Your task to perform on an android device: turn on improve location accuracy Image 0: 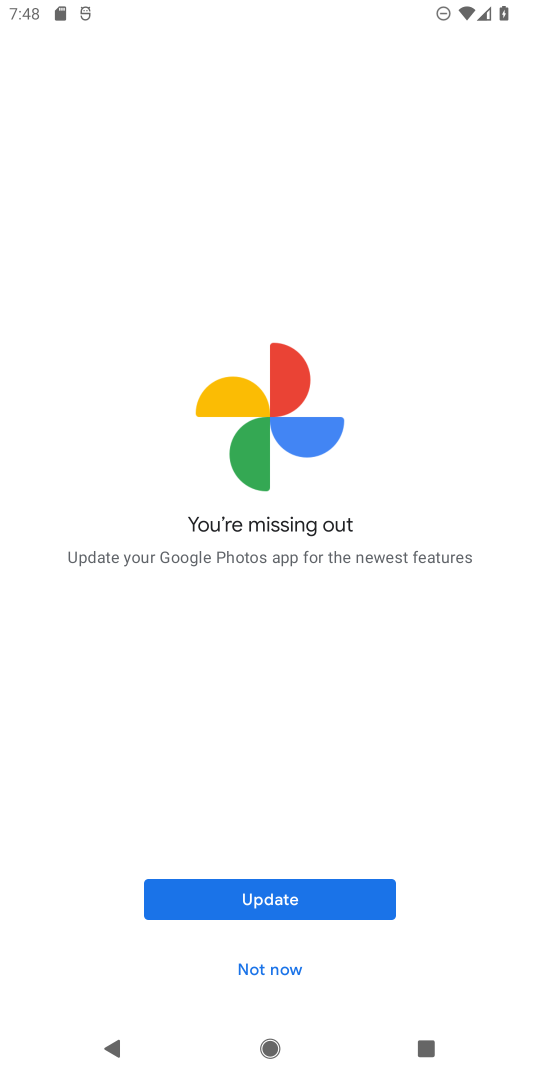
Step 0: press home button
Your task to perform on an android device: turn on improve location accuracy Image 1: 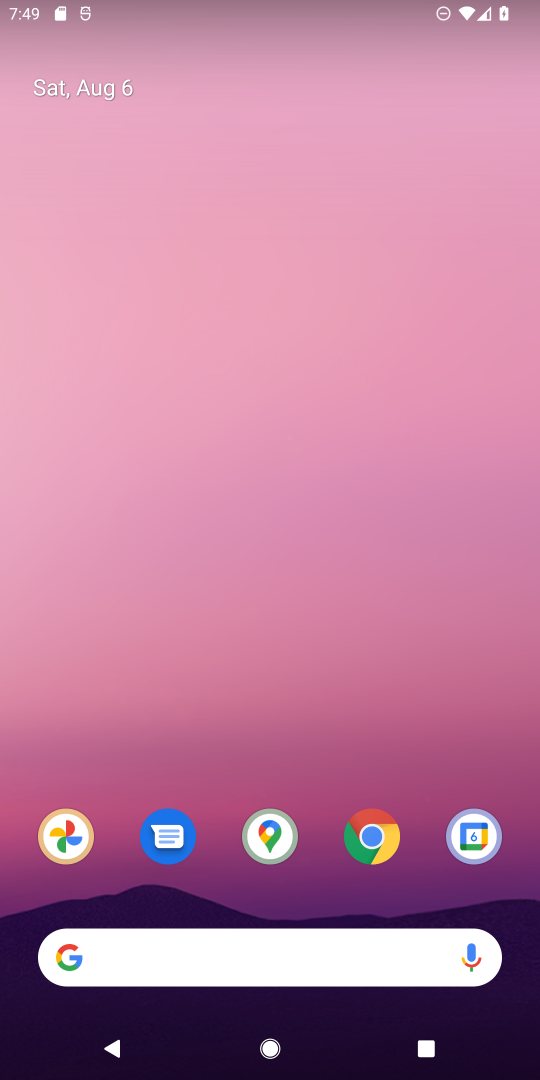
Step 1: drag from (291, 888) to (271, 517)
Your task to perform on an android device: turn on improve location accuracy Image 2: 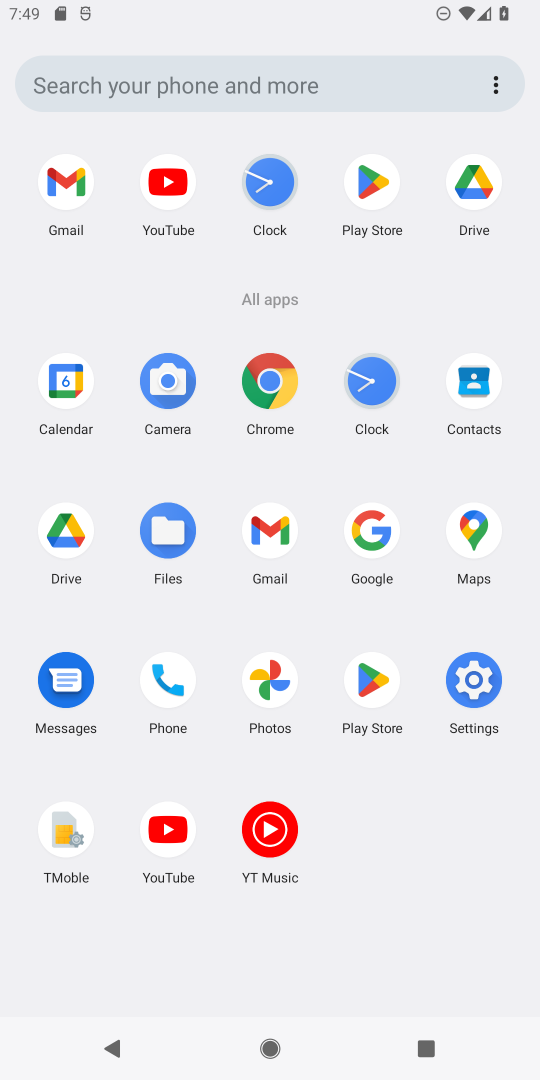
Step 2: click (470, 681)
Your task to perform on an android device: turn on improve location accuracy Image 3: 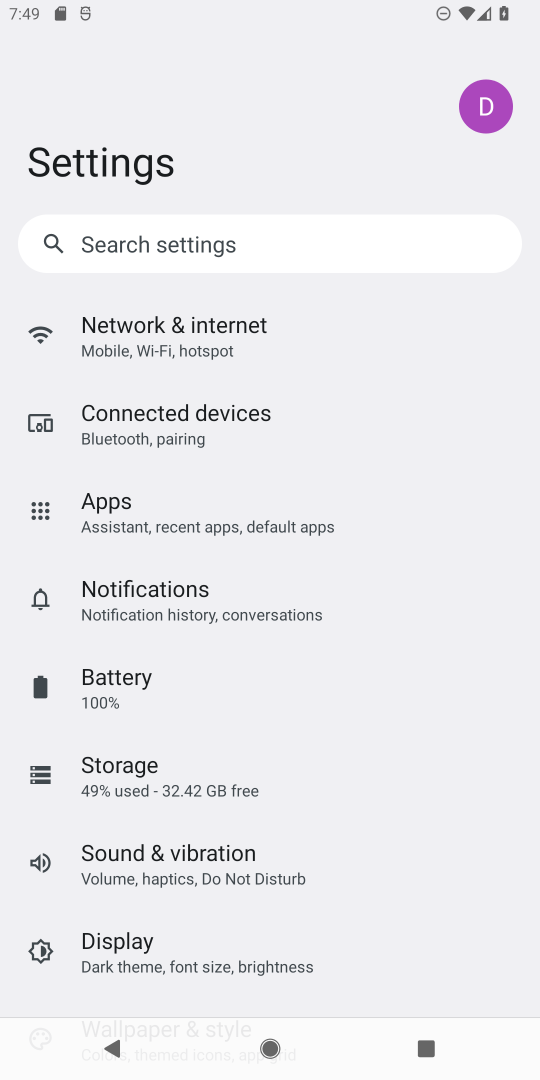
Step 3: drag from (135, 958) to (169, 637)
Your task to perform on an android device: turn on improve location accuracy Image 4: 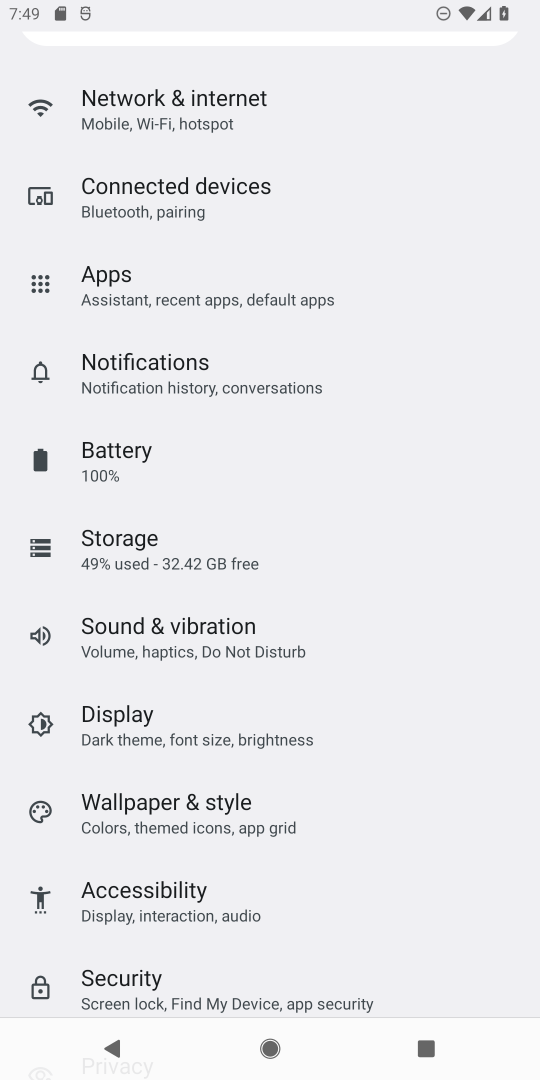
Step 4: drag from (158, 984) to (173, 532)
Your task to perform on an android device: turn on improve location accuracy Image 5: 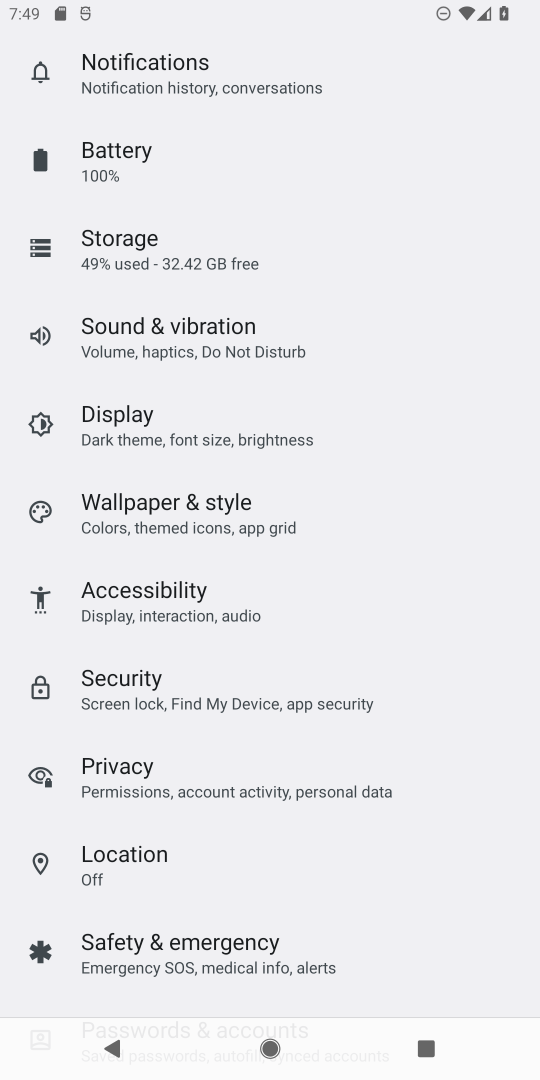
Step 5: click (135, 896)
Your task to perform on an android device: turn on improve location accuracy Image 6: 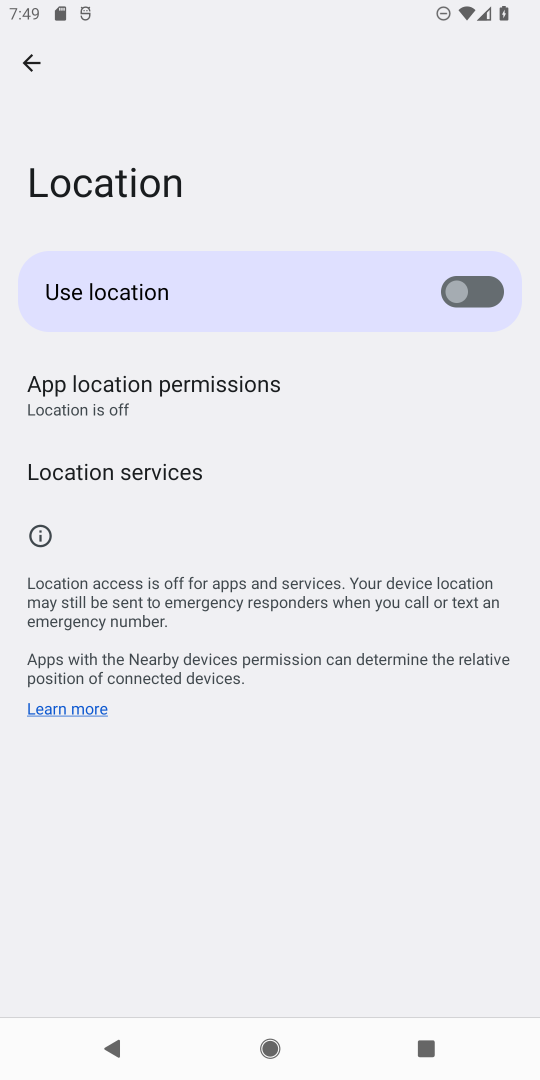
Step 6: click (142, 469)
Your task to perform on an android device: turn on improve location accuracy Image 7: 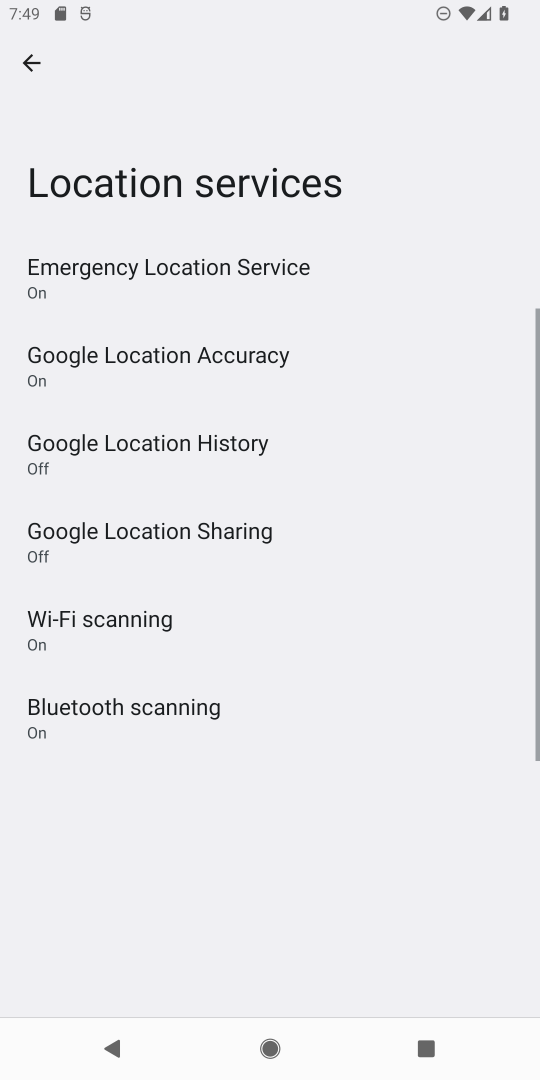
Step 7: click (149, 360)
Your task to perform on an android device: turn on improve location accuracy Image 8: 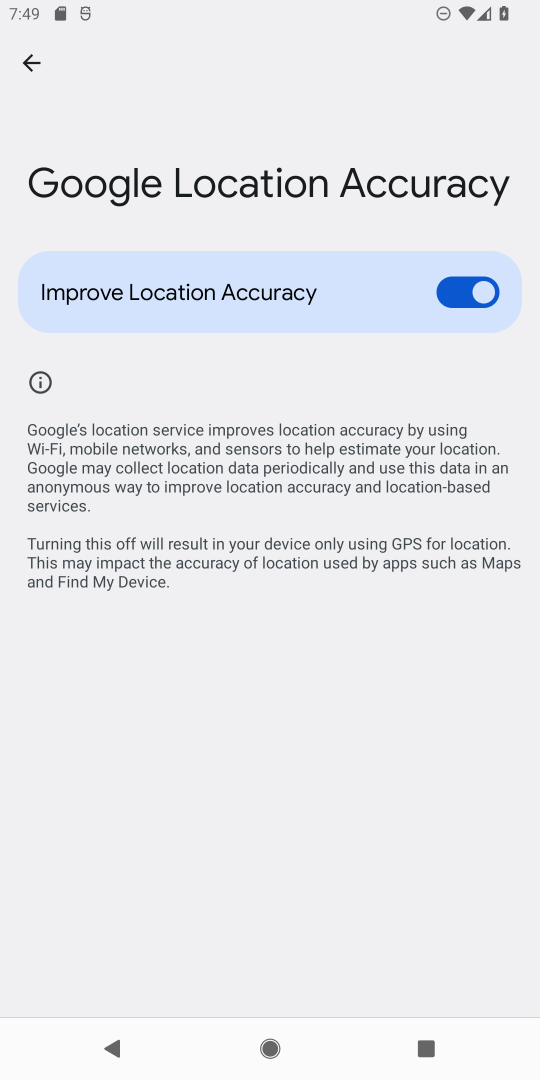
Step 8: task complete